Your task to perform on an android device: Go to Yahoo.com Image 0: 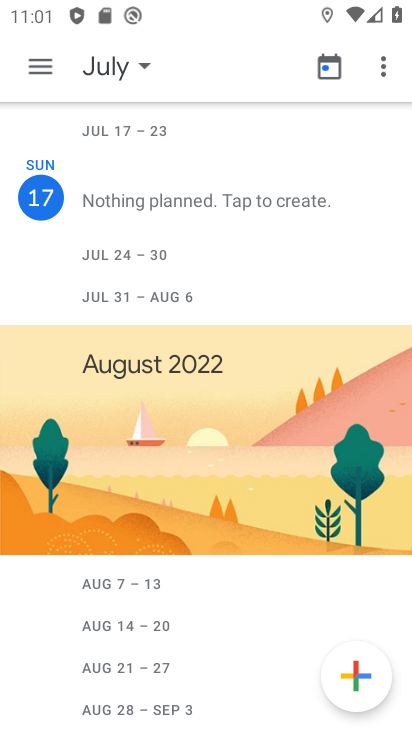
Step 0: press home button
Your task to perform on an android device: Go to Yahoo.com Image 1: 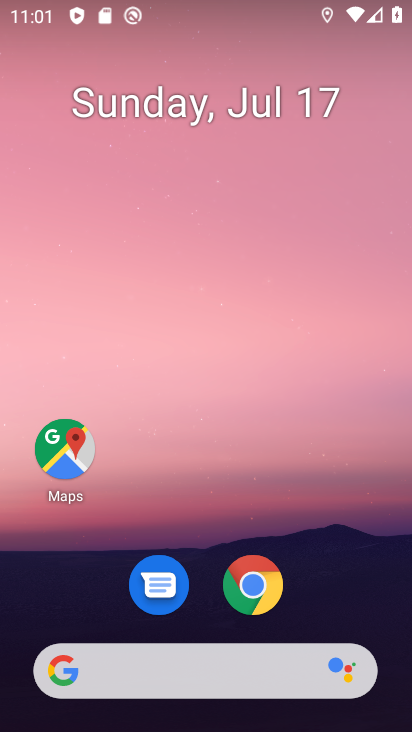
Step 1: click (218, 689)
Your task to perform on an android device: Go to Yahoo.com Image 2: 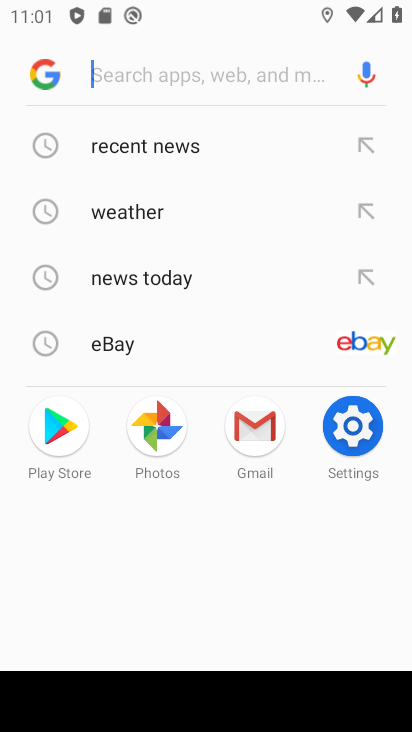
Step 2: type "yahoo.com"
Your task to perform on an android device: Go to Yahoo.com Image 3: 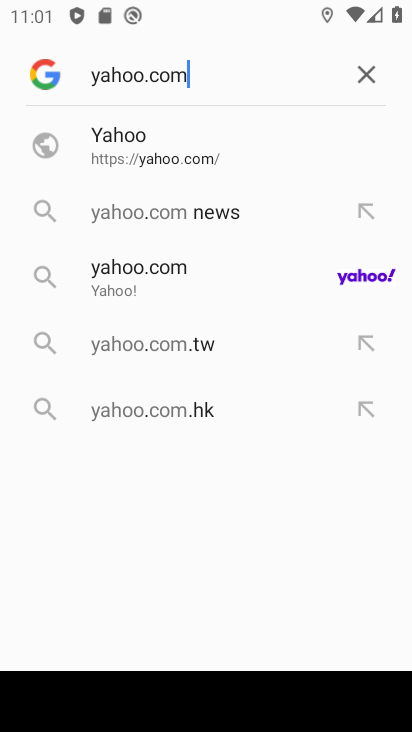
Step 3: click (181, 275)
Your task to perform on an android device: Go to Yahoo.com Image 4: 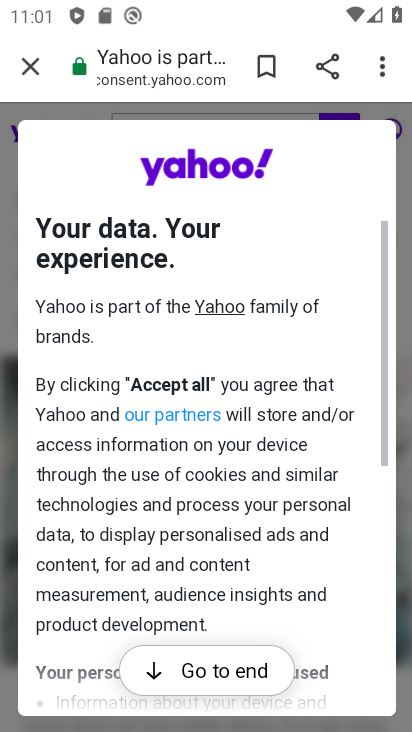
Step 4: task complete